Your task to perform on an android device: open wifi settings Image 0: 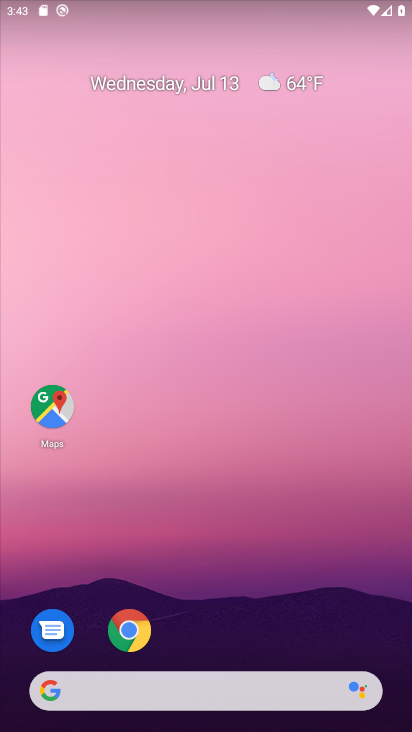
Step 0: drag from (193, 12) to (286, 644)
Your task to perform on an android device: open wifi settings Image 1: 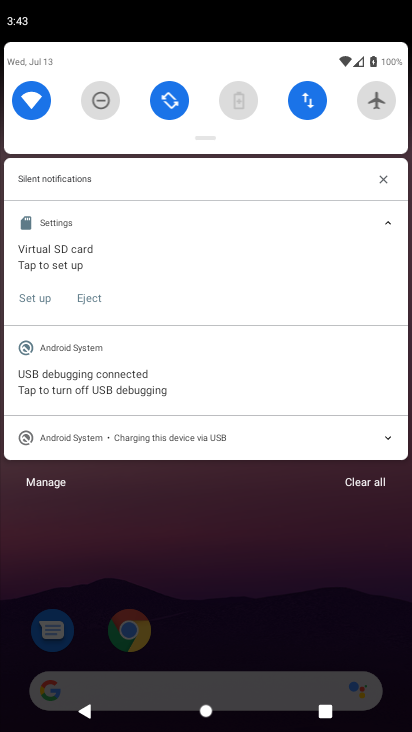
Step 1: click (34, 103)
Your task to perform on an android device: open wifi settings Image 2: 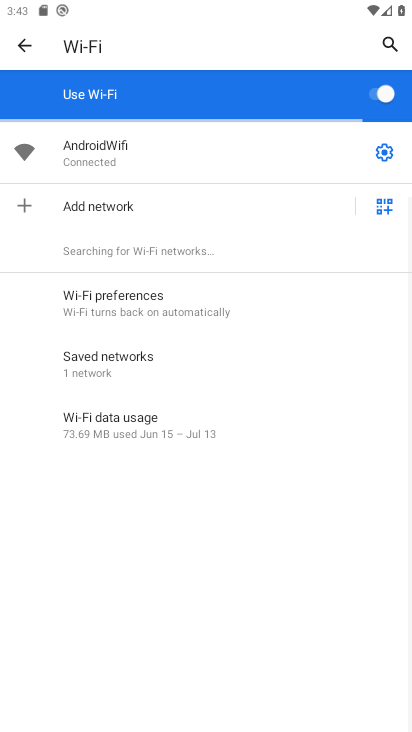
Step 2: task complete